Your task to perform on an android device: turn on the 12-hour format for clock Image 0: 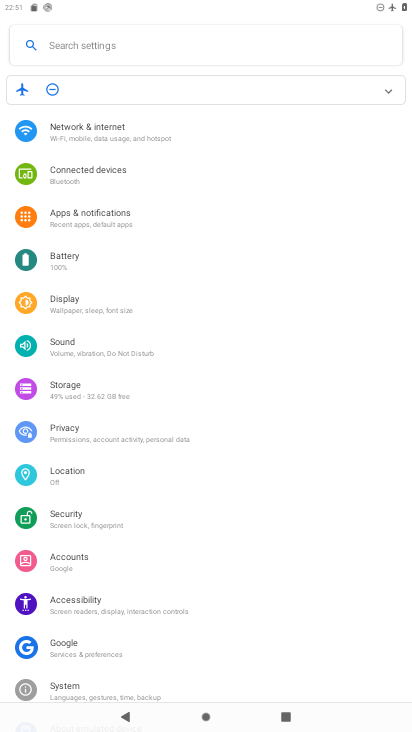
Step 0: press home button
Your task to perform on an android device: turn on the 12-hour format for clock Image 1: 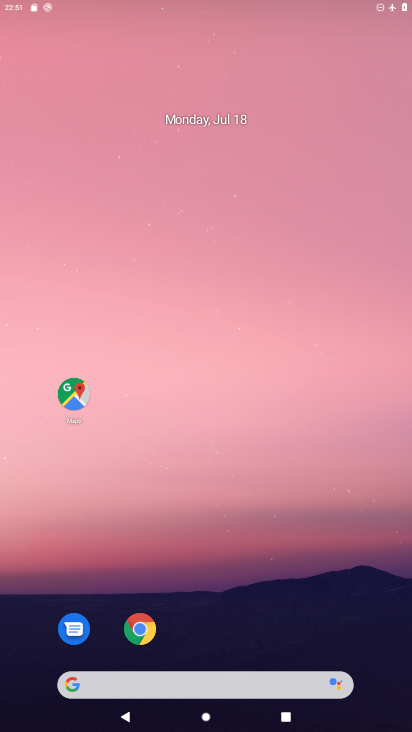
Step 1: drag from (263, 603) to (196, 162)
Your task to perform on an android device: turn on the 12-hour format for clock Image 2: 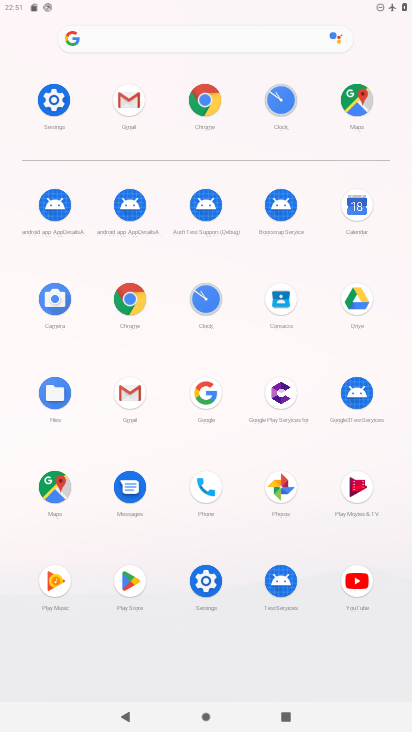
Step 2: click (203, 294)
Your task to perform on an android device: turn on the 12-hour format for clock Image 3: 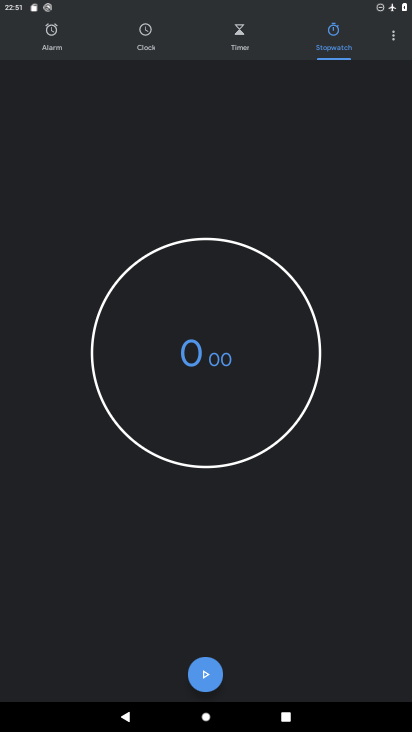
Step 3: click (397, 36)
Your task to perform on an android device: turn on the 12-hour format for clock Image 4: 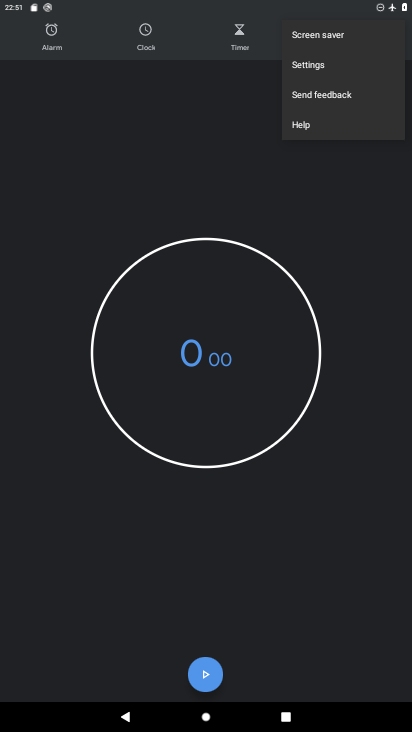
Step 4: click (331, 65)
Your task to perform on an android device: turn on the 12-hour format for clock Image 5: 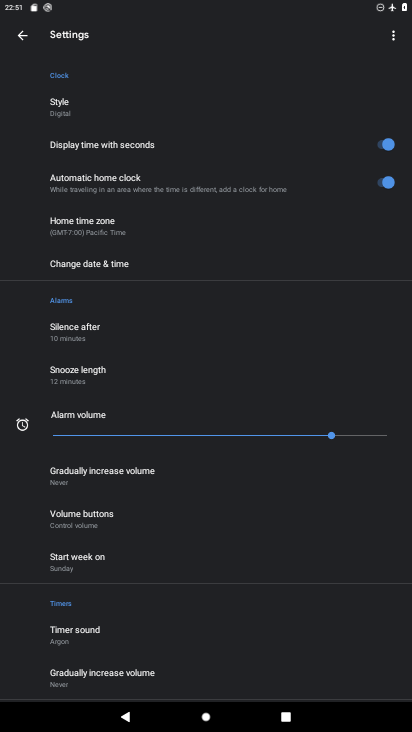
Step 5: click (117, 262)
Your task to perform on an android device: turn on the 12-hour format for clock Image 6: 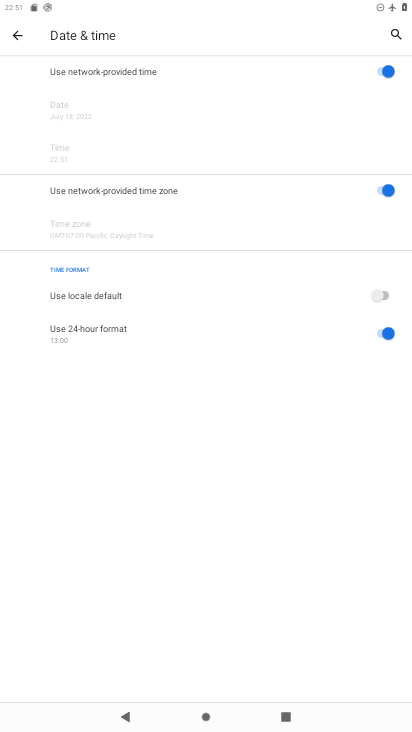
Step 6: click (379, 294)
Your task to perform on an android device: turn on the 12-hour format for clock Image 7: 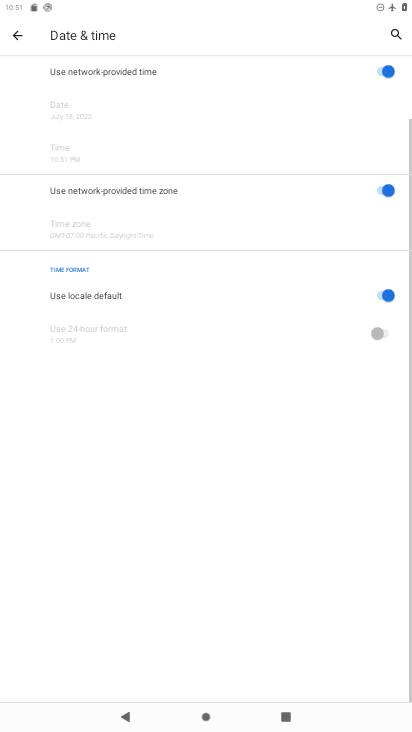
Step 7: task complete